Your task to perform on an android device: Do I have any events today? Image 0: 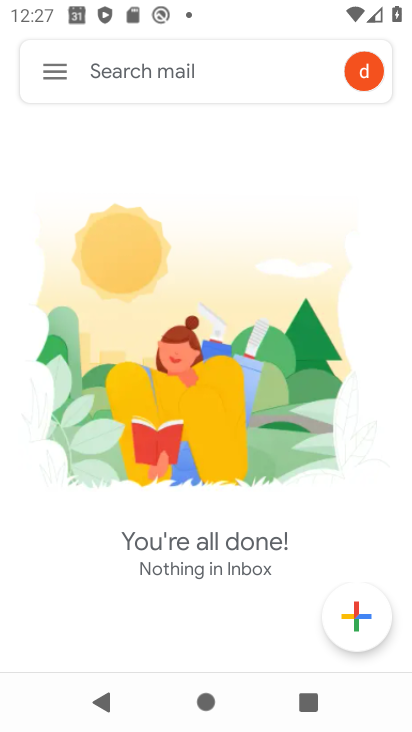
Step 0: press home button
Your task to perform on an android device: Do I have any events today? Image 1: 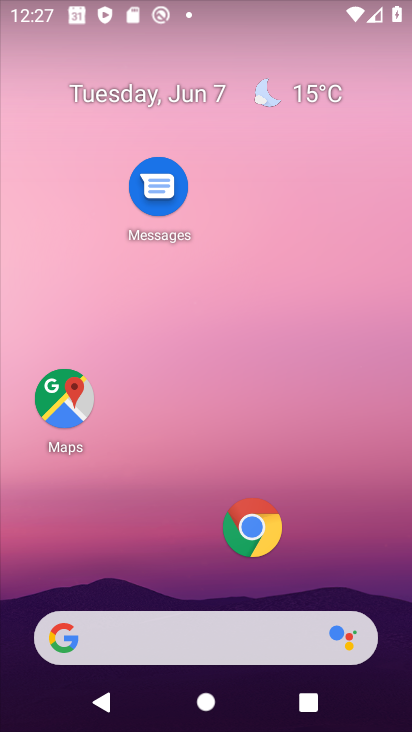
Step 1: drag from (172, 616) to (242, 76)
Your task to perform on an android device: Do I have any events today? Image 2: 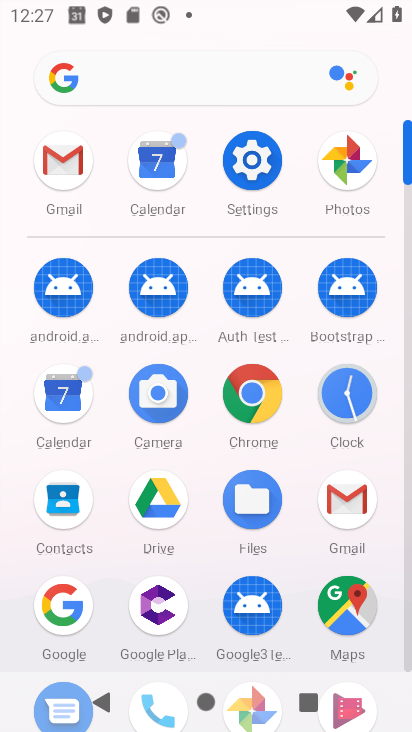
Step 2: click (169, 154)
Your task to perform on an android device: Do I have any events today? Image 3: 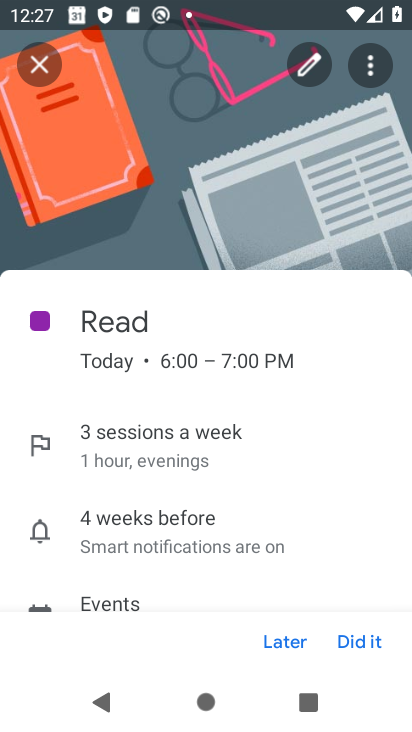
Step 3: task complete